Your task to perform on an android device: change text size in settings app Image 0: 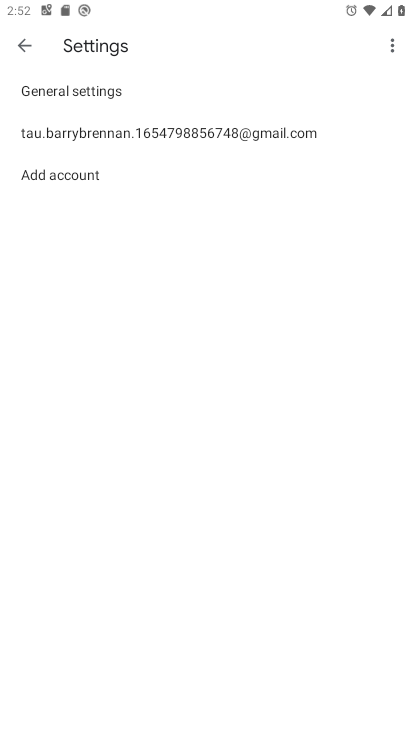
Step 0: press home button
Your task to perform on an android device: change text size in settings app Image 1: 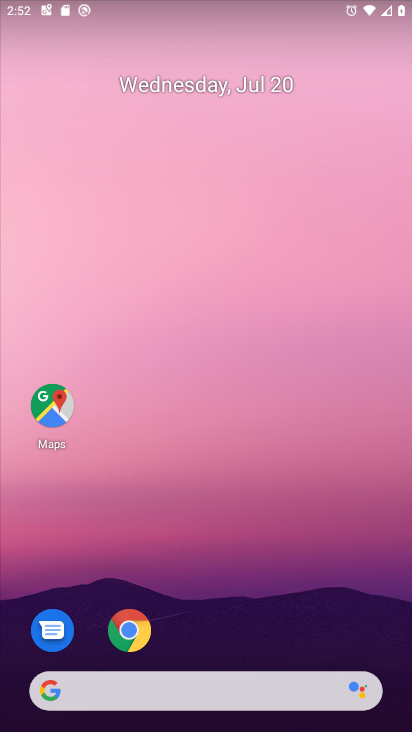
Step 1: drag from (221, 651) to (209, 177)
Your task to perform on an android device: change text size in settings app Image 2: 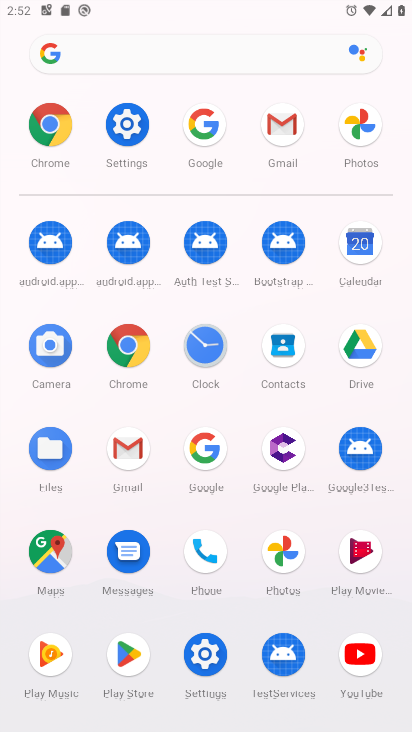
Step 2: click (132, 153)
Your task to perform on an android device: change text size in settings app Image 3: 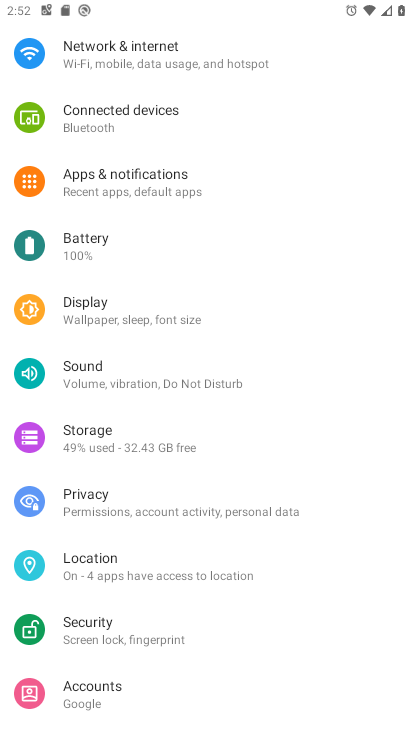
Step 3: click (131, 317)
Your task to perform on an android device: change text size in settings app Image 4: 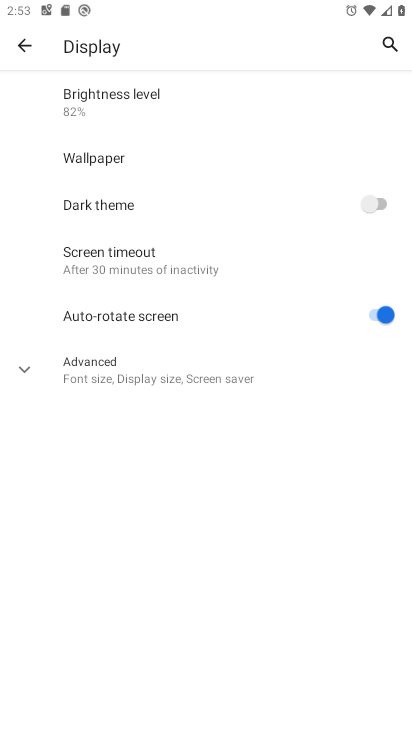
Step 4: click (150, 365)
Your task to perform on an android device: change text size in settings app Image 5: 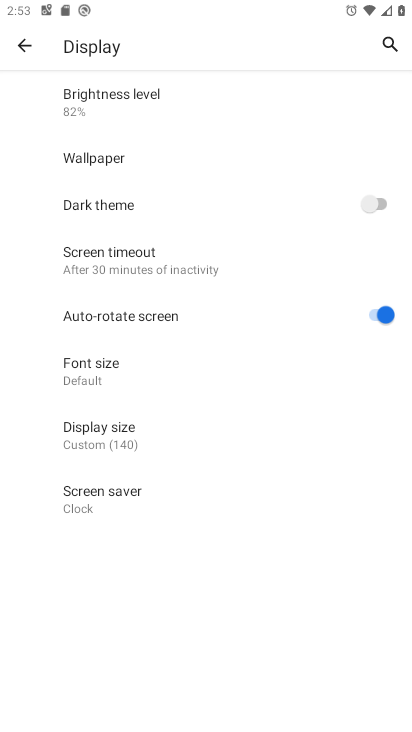
Step 5: click (103, 372)
Your task to perform on an android device: change text size in settings app Image 6: 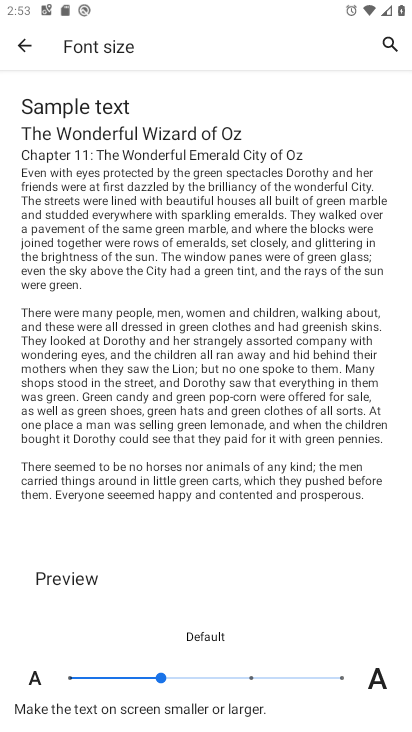
Step 6: click (249, 676)
Your task to perform on an android device: change text size in settings app Image 7: 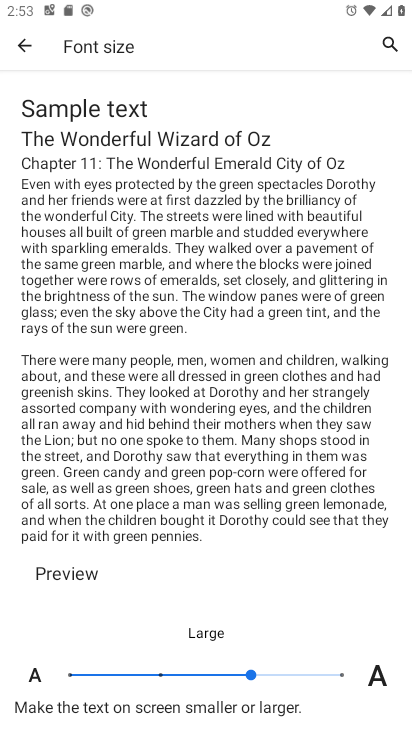
Step 7: task complete